Your task to perform on an android device: turn off translation in the chrome app Image 0: 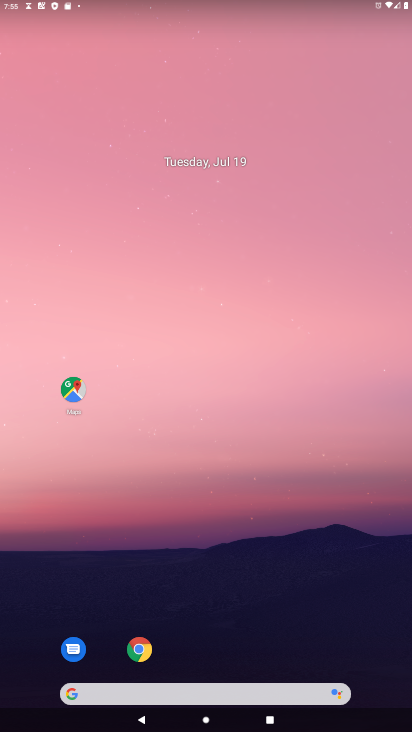
Step 0: click (139, 651)
Your task to perform on an android device: turn off translation in the chrome app Image 1: 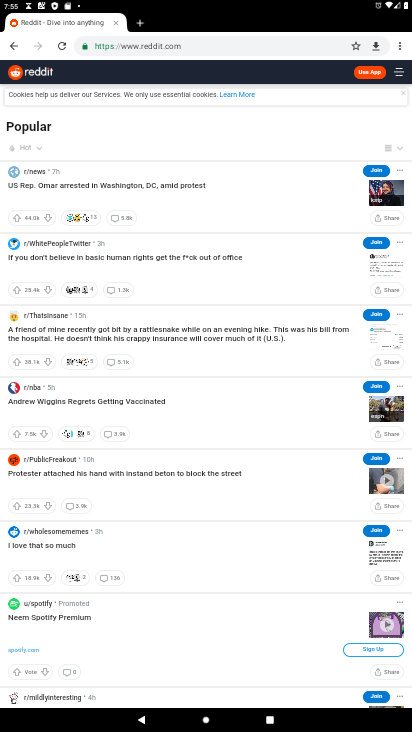
Step 1: click (399, 47)
Your task to perform on an android device: turn off translation in the chrome app Image 2: 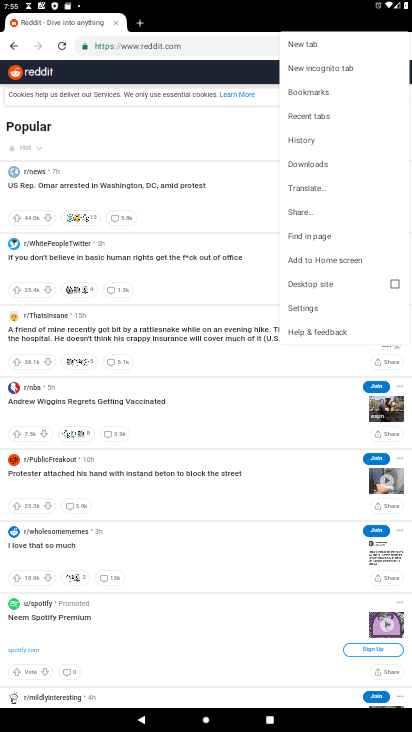
Step 2: click (302, 307)
Your task to perform on an android device: turn off translation in the chrome app Image 3: 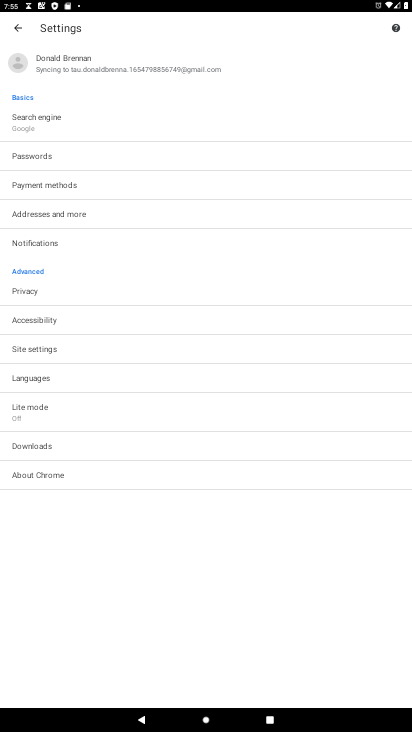
Step 3: click (30, 376)
Your task to perform on an android device: turn off translation in the chrome app Image 4: 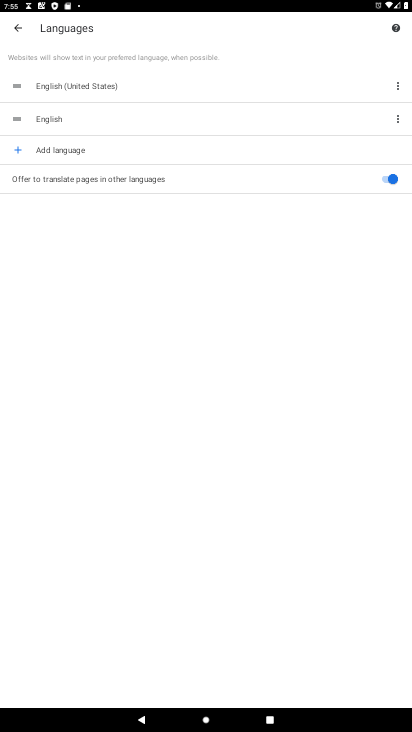
Step 4: click (388, 179)
Your task to perform on an android device: turn off translation in the chrome app Image 5: 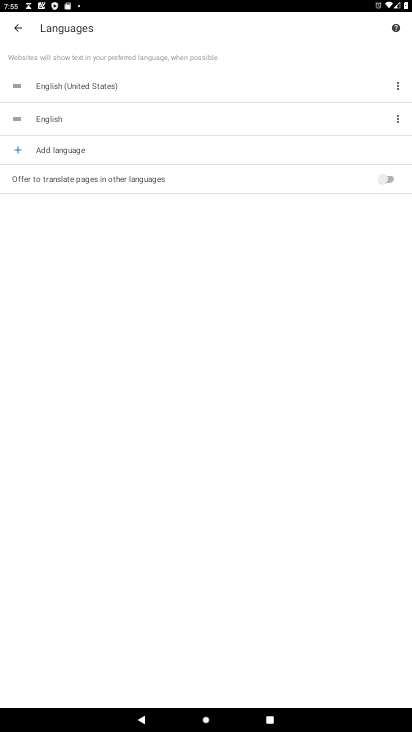
Step 5: task complete